Your task to perform on an android device: check out phone information Image 0: 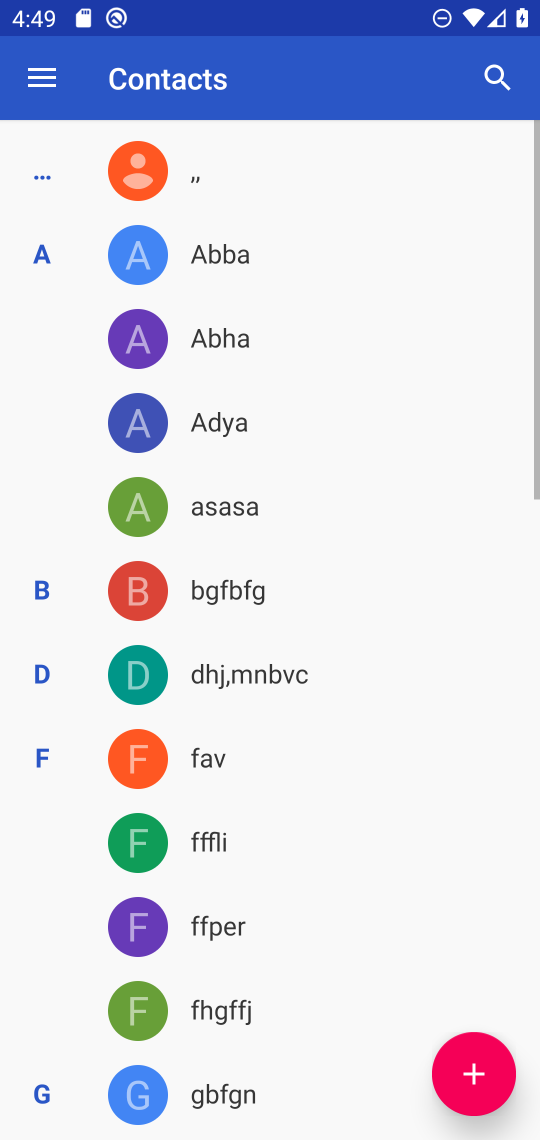
Step 0: click (538, 603)
Your task to perform on an android device: check out phone information Image 1: 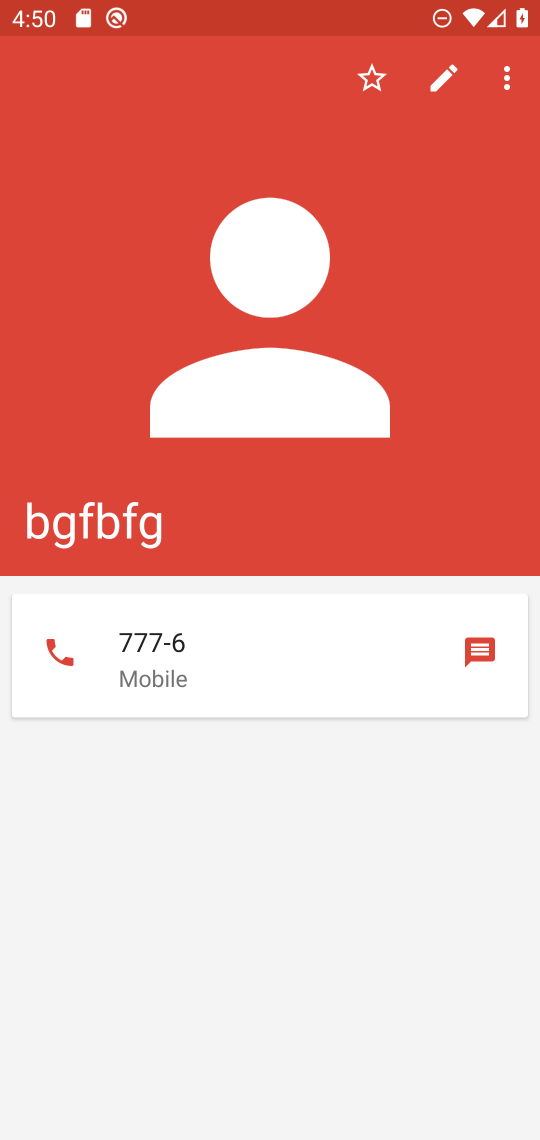
Step 1: press home button
Your task to perform on an android device: check out phone information Image 2: 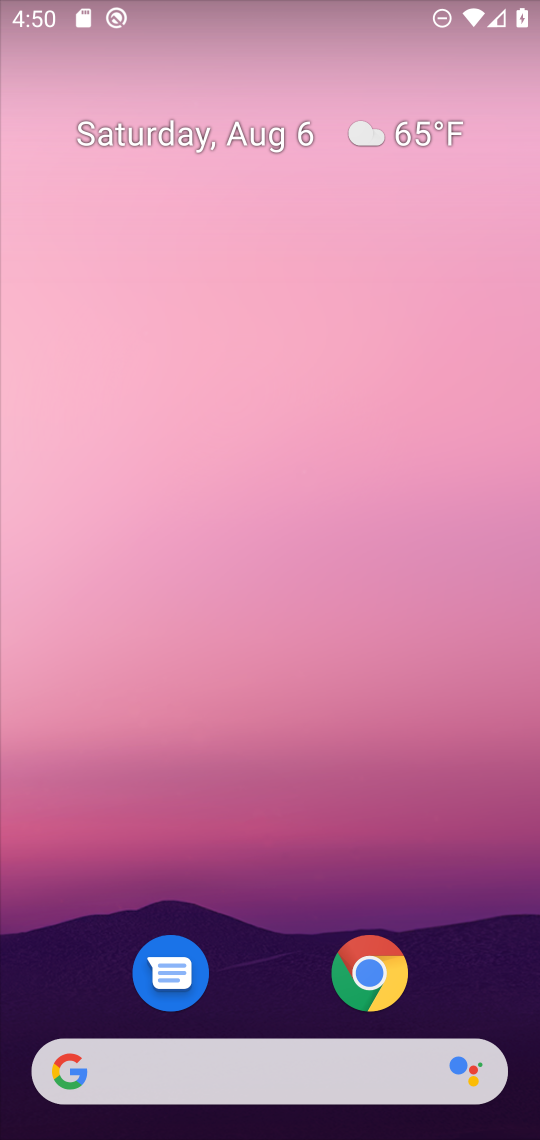
Step 2: drag from (276, 959) to (292, 65)
Your task to perform on an android device: check out phone information Image 3: 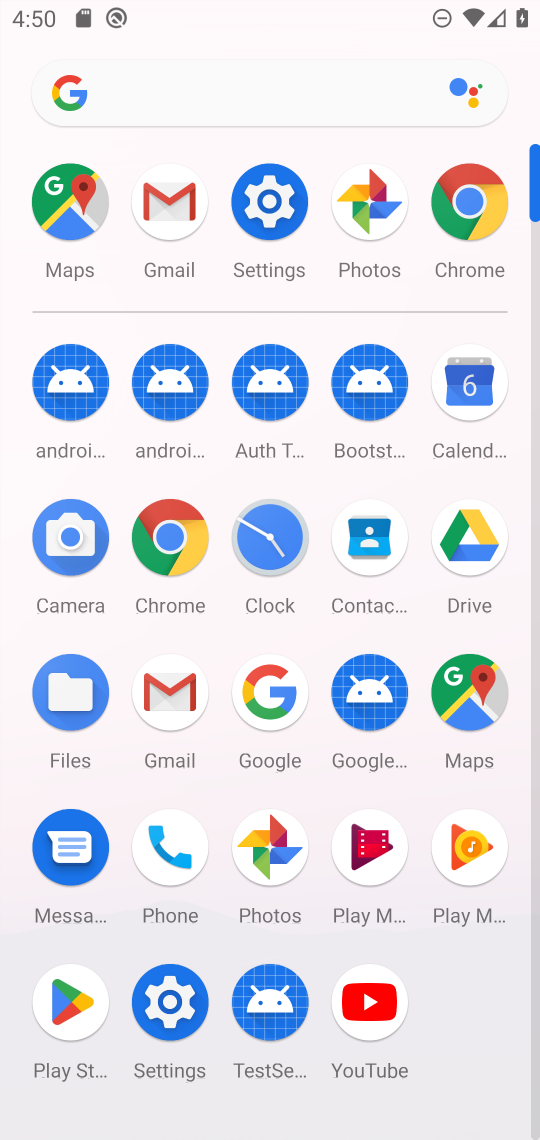
Step 3: click (173, 858)
Your task to perform on an android device: check out phone information Image 4: 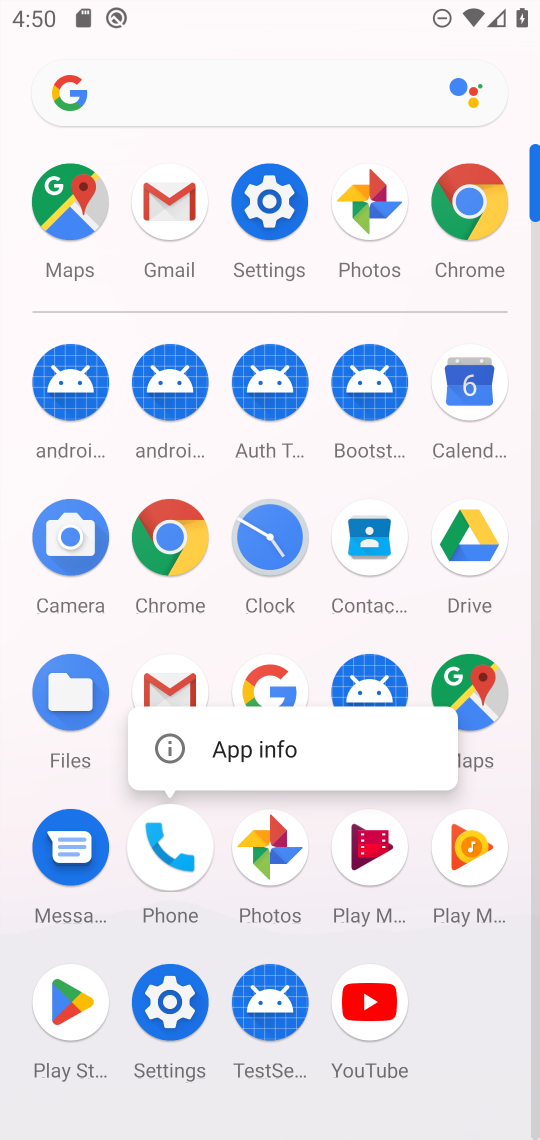
Step 4: click (278, 750)
Your task to perform on an android device: check out phone information Image 5: 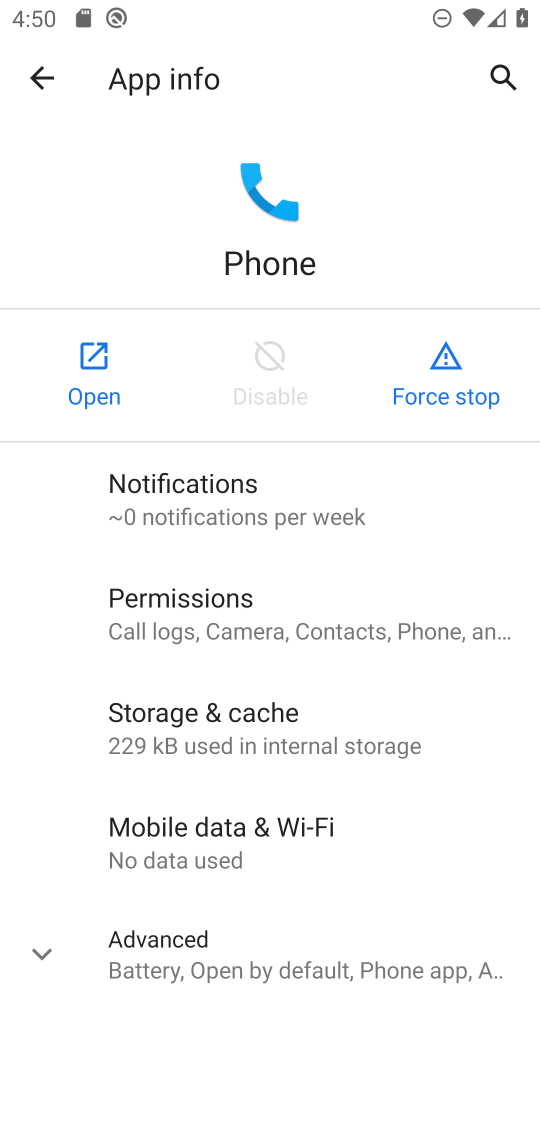
Step 5: task complete